Your task to perform on an android device: Open Google Maps and go to "Timeline" Image 0: 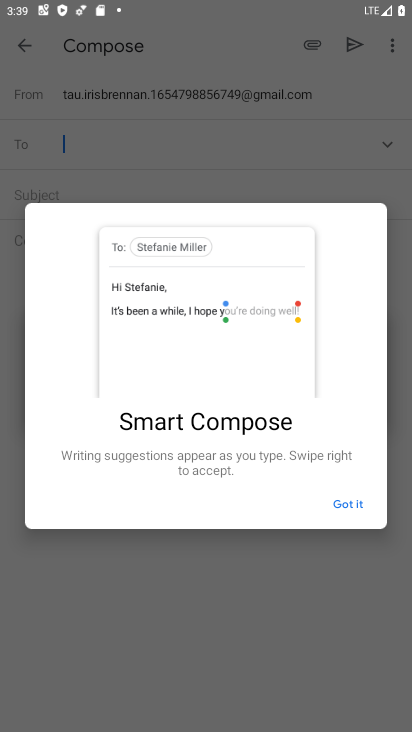
Step 0: press home button
Your task to perform on an android device: Open Google Maps and go to "Timeline" Image 1: 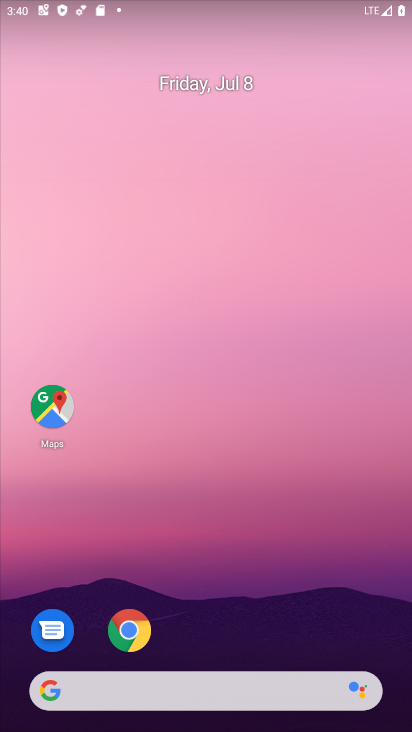
Step 1: drag from (227, 625) to (286, 136)
Your task to perform on an android device: Open Google Maps and go to "Timeline" Image 2: 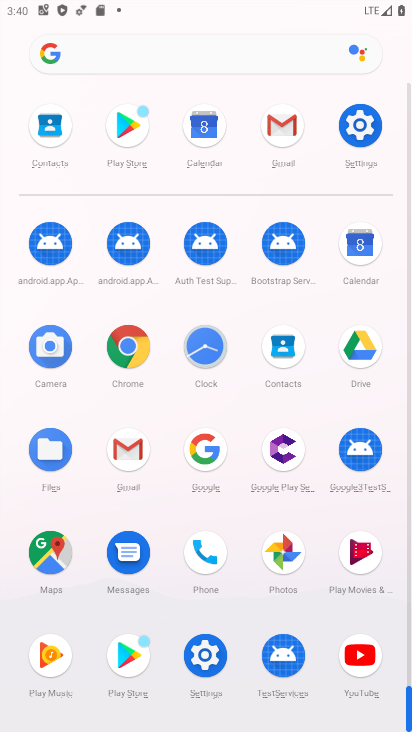
Step 2: click (53, 551)
Your task to perform on an android device: Open Google Maps and go to "Timeline" Image 3: 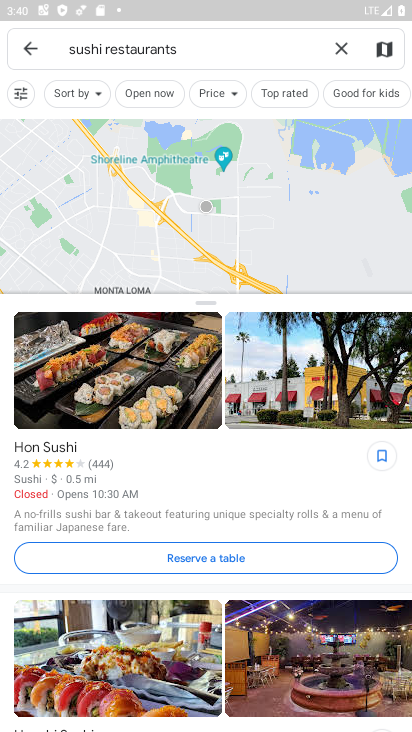
Step 3: press back button
Your task to perform on an android device: Open Google Maps and go to "Timeline" Image 4: 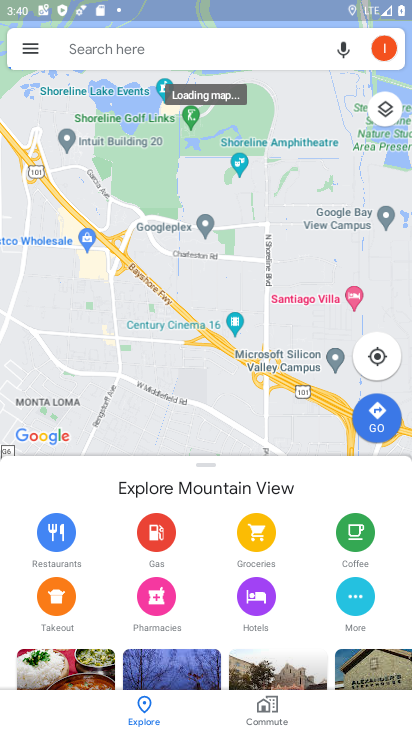
Step 4: click (28, 51)
Your task to perform on an android device: Open Google Maps and go to "Timeline" Image 5: 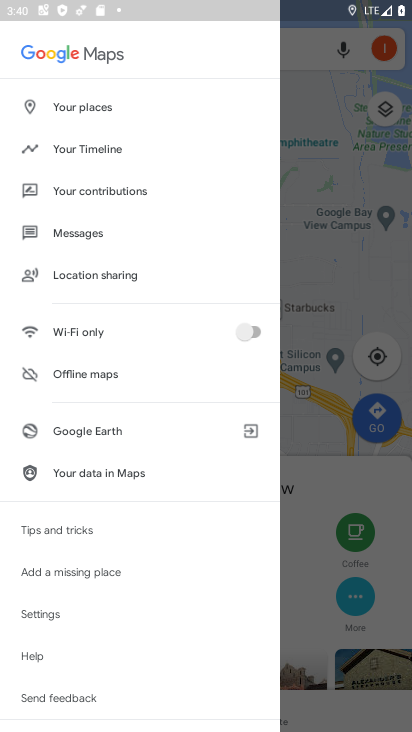
Step 5: click (98, 150)
Your task to perform on an android device: Open Google Maps and go to "Timeline" Image 6: 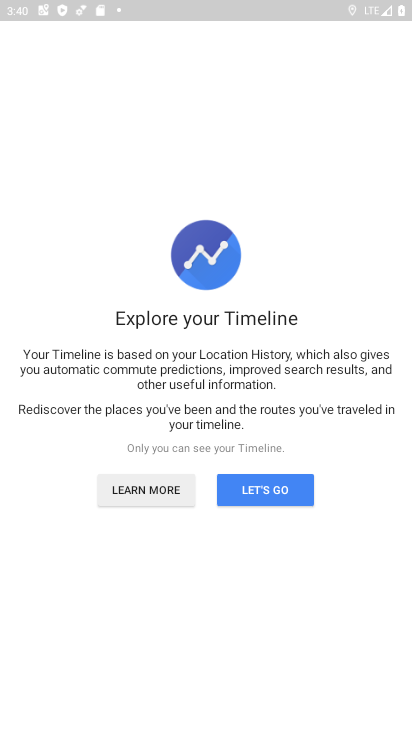
Step 6: click (251, 495)
Your task to perform on an android device: Open Google Maps and go to "Timeline" Image 7: 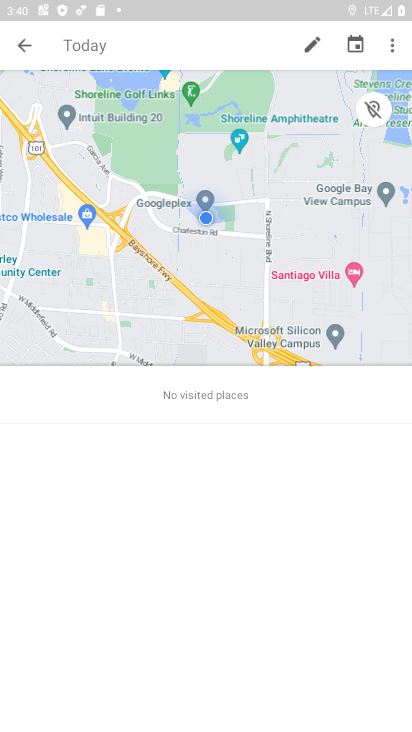
Step 7: task complete